Your task to perform on an android device: create a new album in the google photos Image 0: 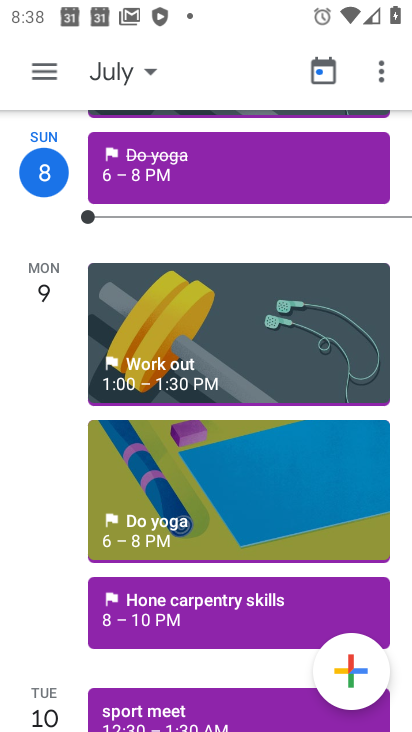
Step 0: press home button
Your task to perform on an android device: create a new album in the google photos Image 1: 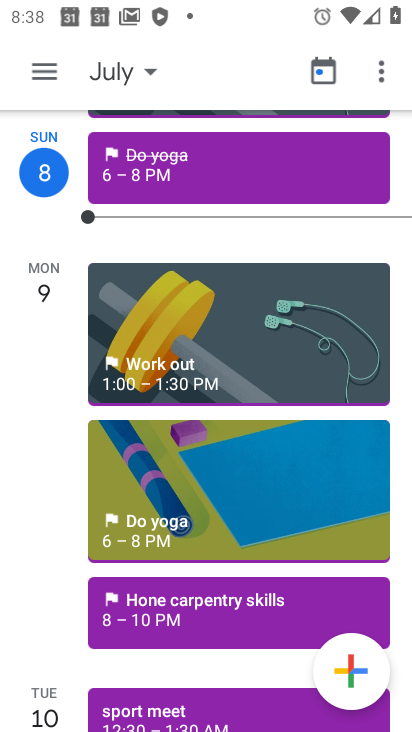
Step 1: press home button
Your task to perform on an android device: create a new album in the google photos Image 2: 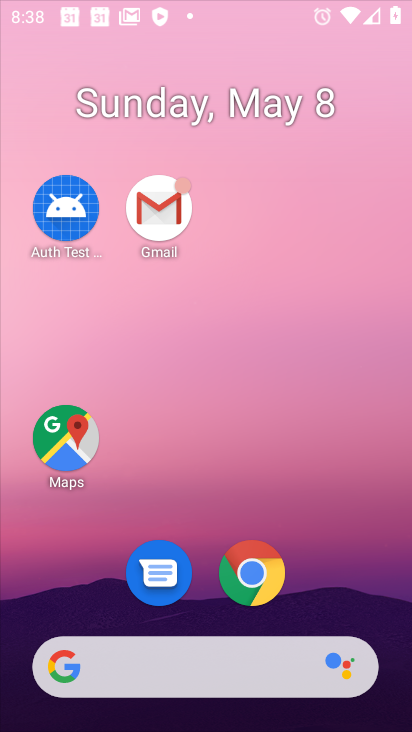
Step 2: press home button
Your task to perform on an android device: create a new album in the google photos Image 3: 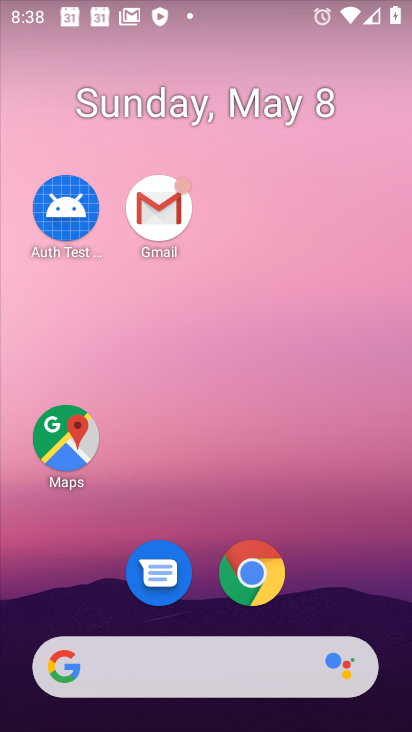
Step 3: drag from (336, 598) to (107, 17)
Your task to perform on an android device: create a new album in the google photos Image 4: 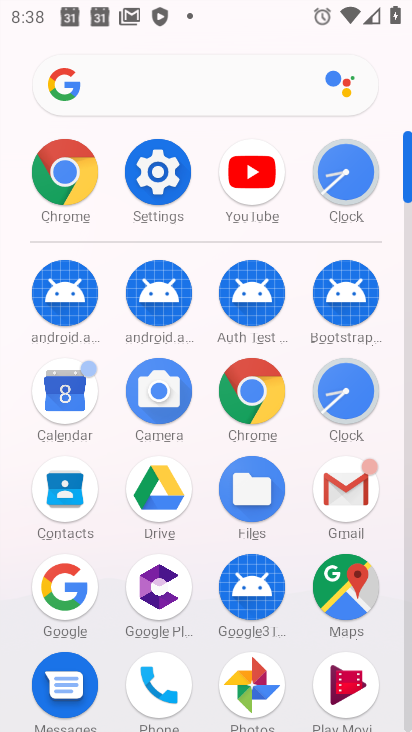
Step 4: click (250, 677)
Your task to perform on an android device: create a new album in the google photos Image 5: 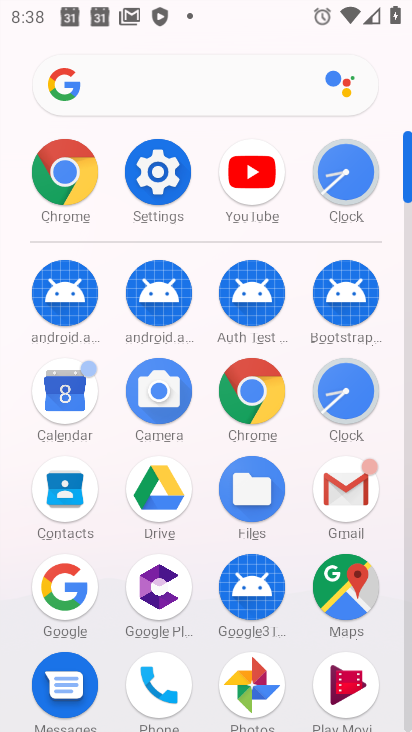
Step 5: click (250, 678)
Your task to perform on an android device: create a new album in the google photos Image 6: 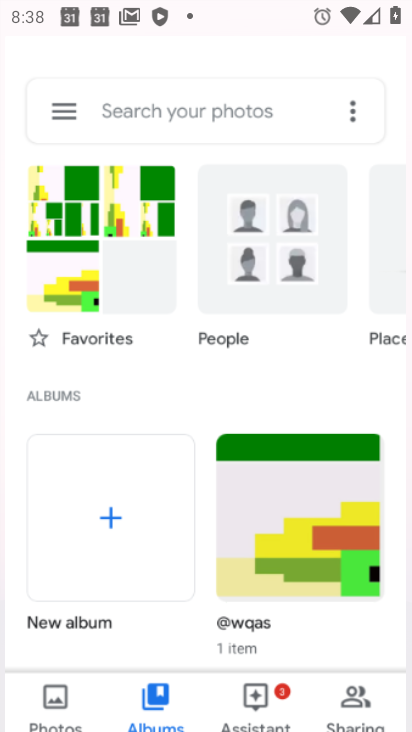
Step 6: click (251, 679)
Your task to perform on an android device: create a new album in the google photos Image 7: 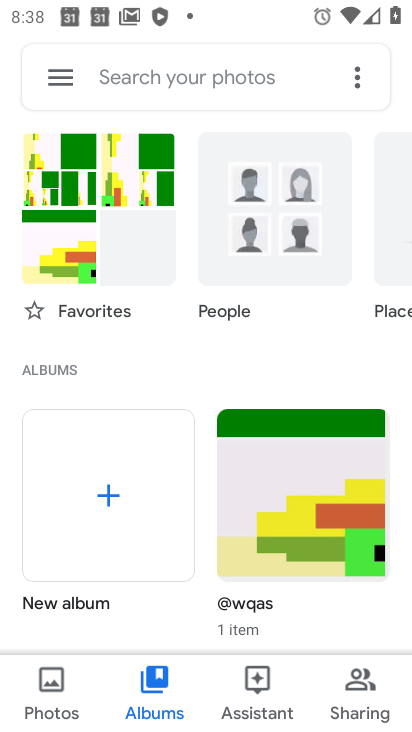
Step 7: click (253, 679)
Your task to perform on an android device: create a new album in the google photos Image 8: 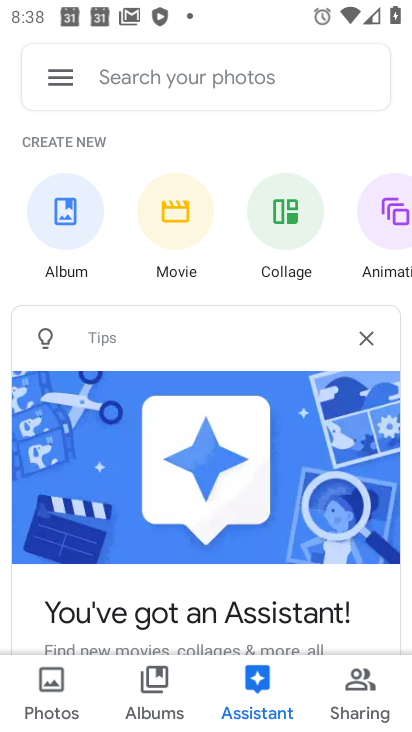
Step 8: click (55, 695)
Your task to perform on an android device: create a new album in the google photos Image 9: 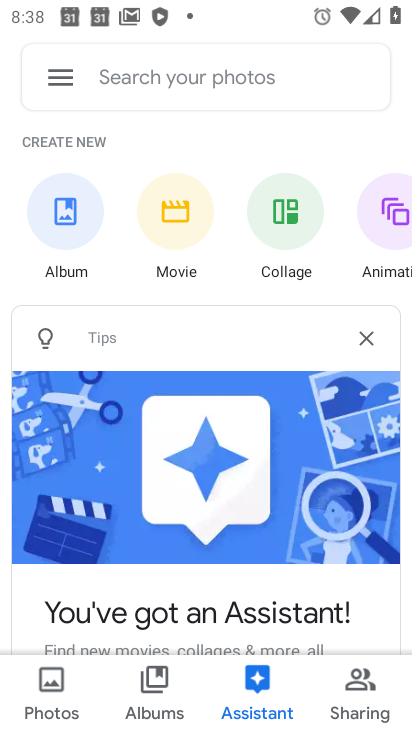
Step 9: click (54, 696)
Your task to perform on an android device: create a new album in the google photos Image 10: 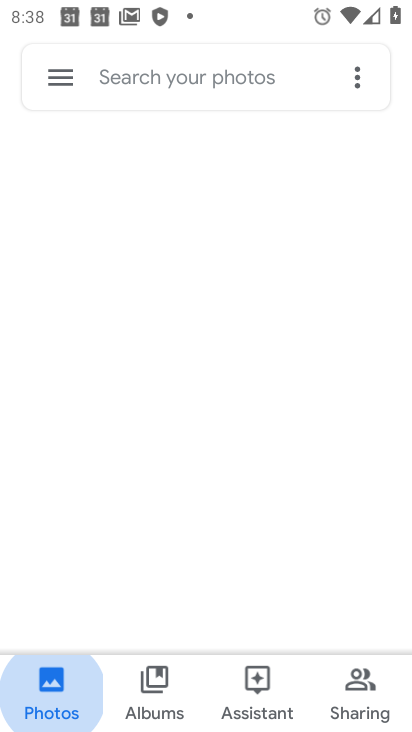
Step 10: click (54, 696)
Your task to perform on an android device: create a new album in the google photos Image 11: 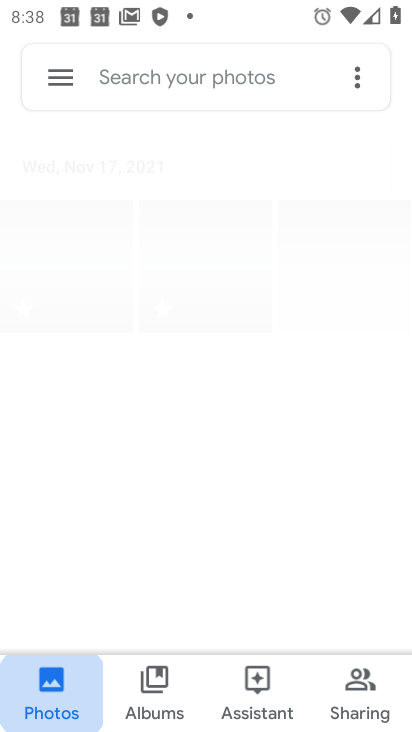
Step 11: click (54, 703)
Your task to perform on an android device: create a new album in the google photos Image 12: 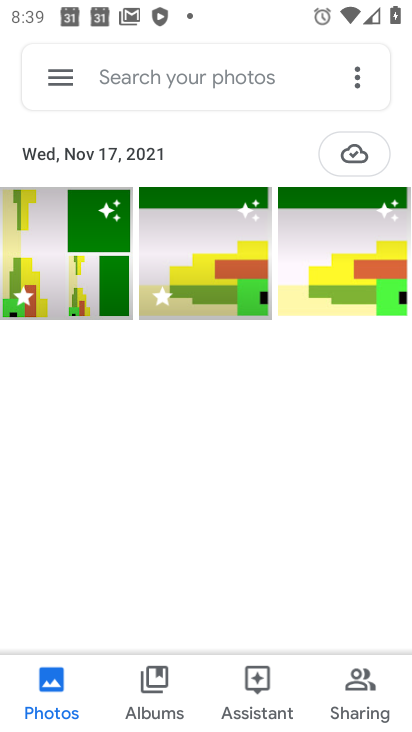
Step 12: task complete